Your task to perform on an android device: all mails in gmail Image 0: 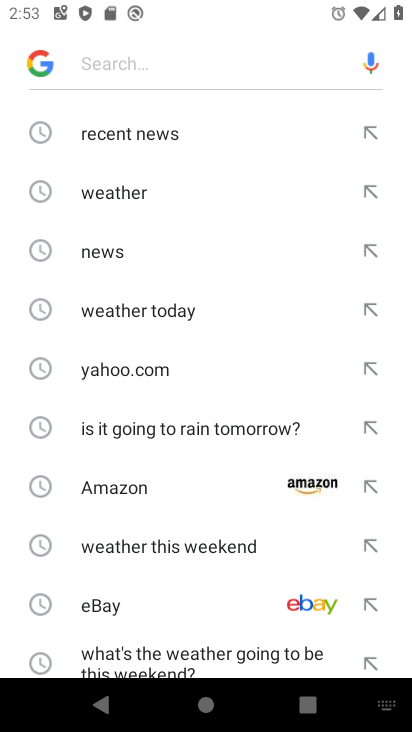
Step 0: press home button
Your task to perform on an android device: all mails in gmail Image 1: 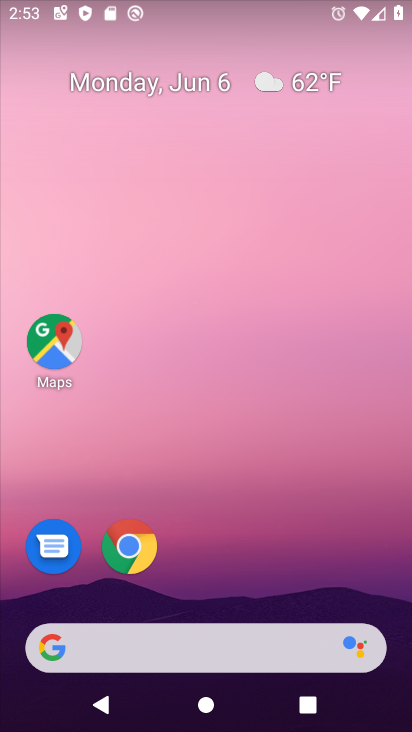
Step 1: drag from (228, 590) to (238, 122)
Your task to perform on an android device: all mails in gmail Image 2: 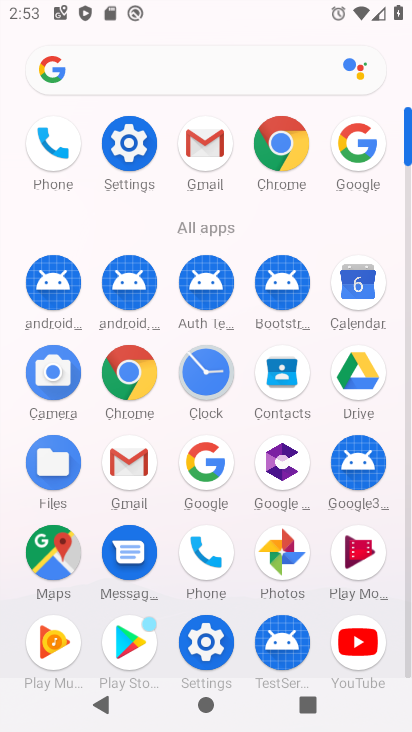
Step 2: click (207, 154)
Your task to perform on an android device: all mails in gmail Image 3: 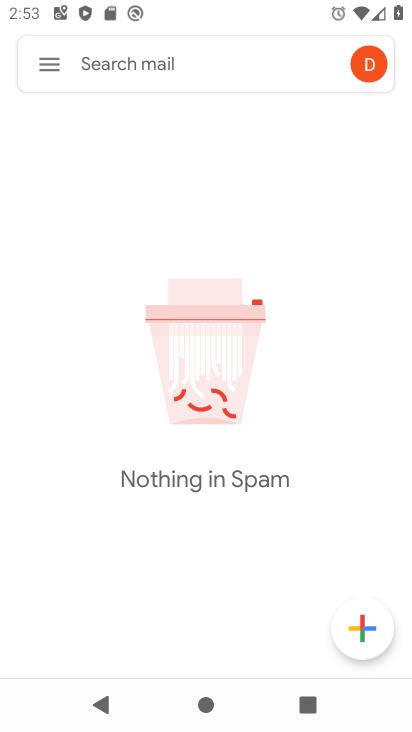
Step 3: click (24, 64)
Your task to perform on an android device: all mails in gmail Image 4: 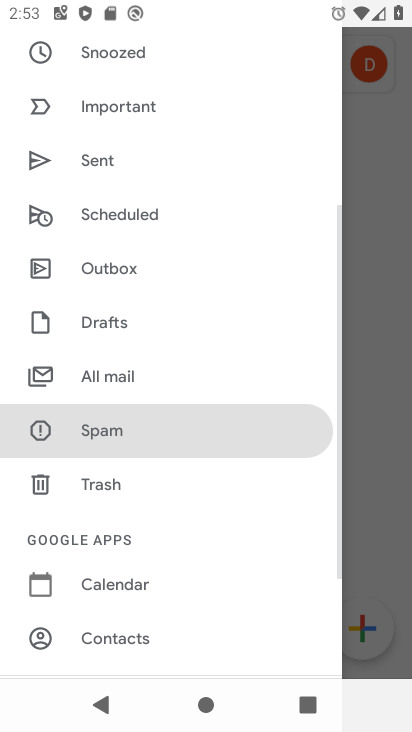
Step 4: click (124, 365)
Your task to perform on an android device: all mails in gmail Image 5: 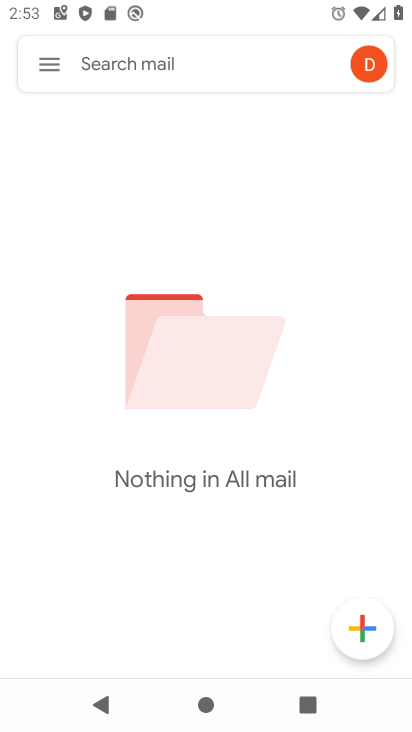
Step 5: click (53, 69)
Your task to perform on an android device: all mails in gmail Image 6: 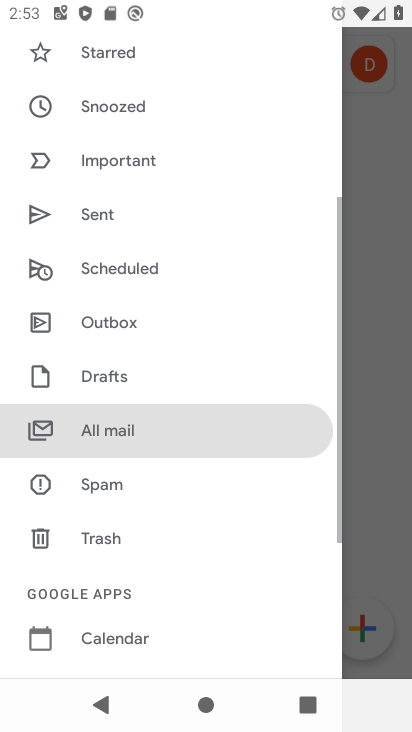
Step 6: click (135, 420)
Your task to perform on an android device: all mails in gmail Image 7: 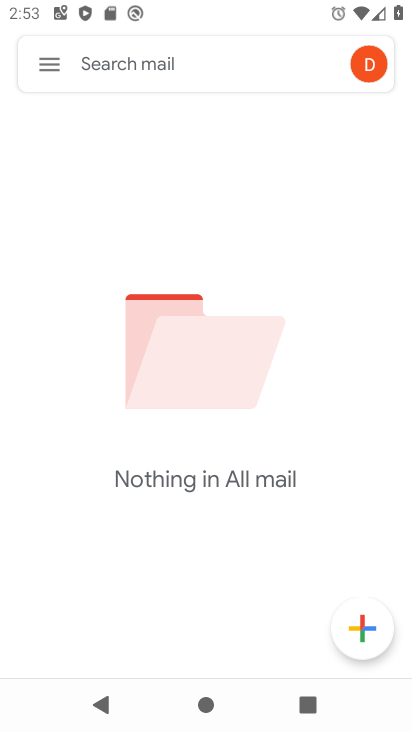
Step 7: task complete